Your task to perform on an android device: What is the news today? Image 0: 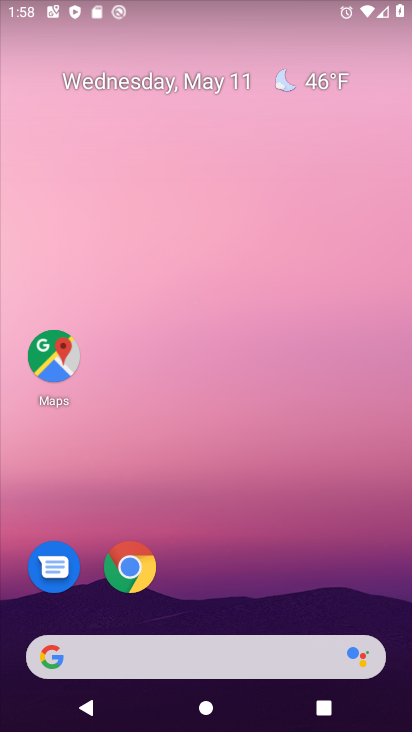
Step 0: click (206, 637)
Your task to perform on an android device: What is the news today? Image 1: 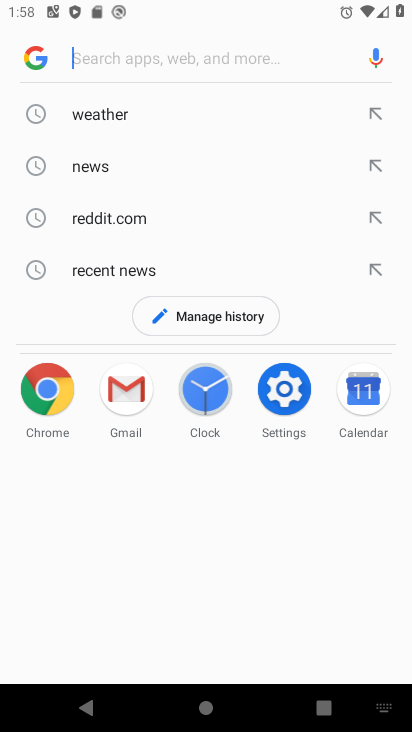
Step 1: click (46, 158)
Your task to perform on an android device: What is the news today? Image 2: 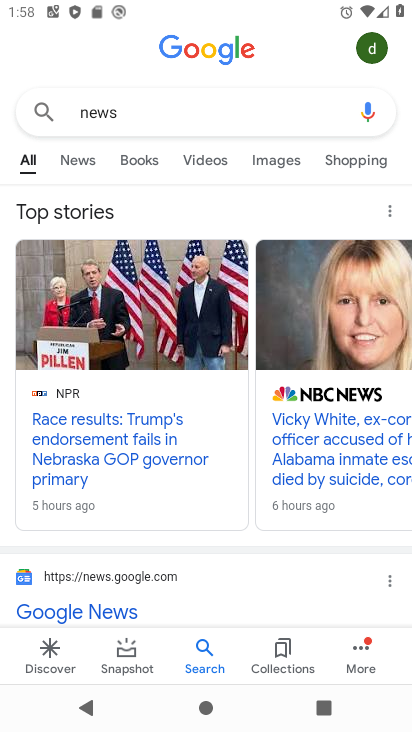
Step 2: task complete